Your task to perform on an android device: set the timer Image 0: 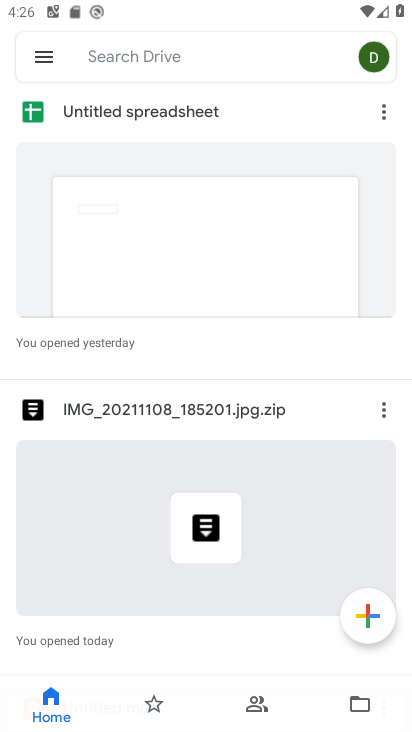
Step 0: press home button
Your task to perform on an android device: set the timer Image 1: 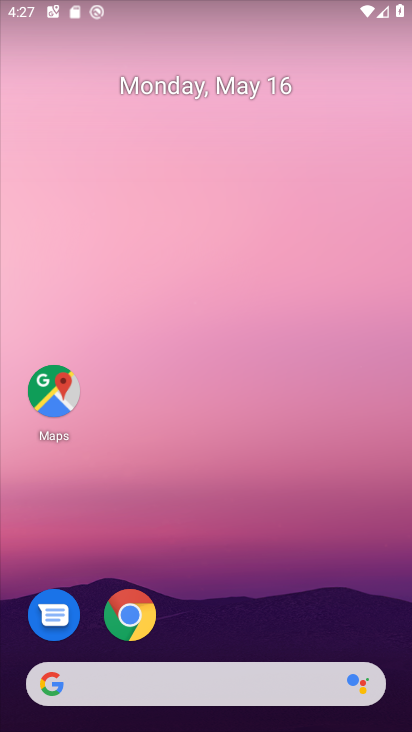
Step 1: drag from (235, 579) to (279, 5)
Your task to perform on an android device: set the timer Image 2: 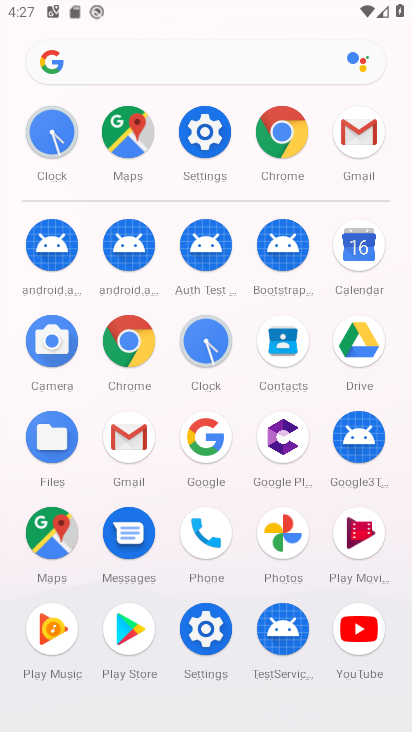
Step 2: click (201, 628)
Your task to perform on an android device: set the timer Image 3: 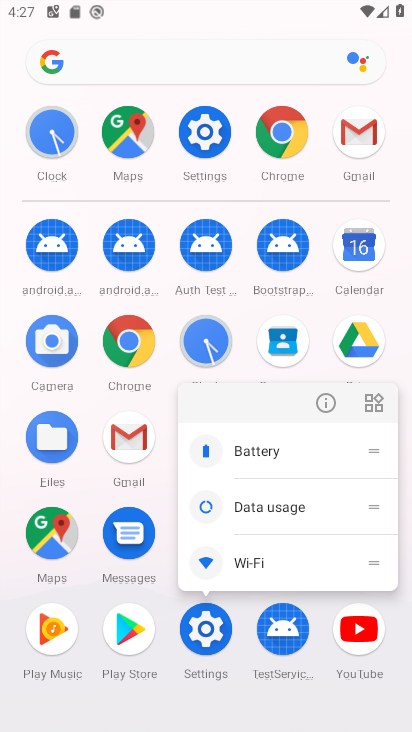
Step 3: click (192, 354)
Your task to perform on an android device: set the timer Image 4: 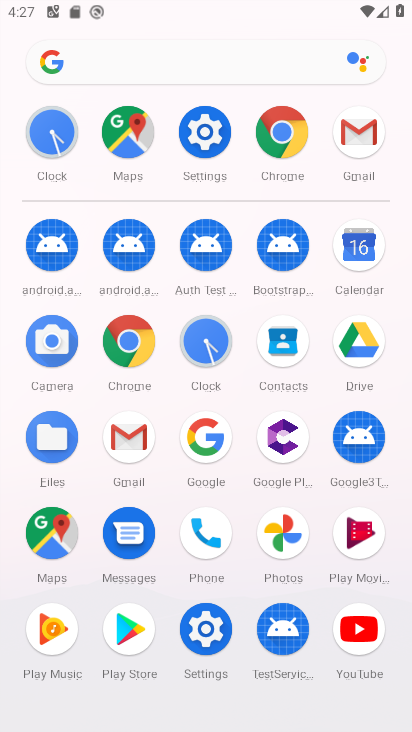
Step 4: click (203, 347)
Your task to perform on an android device: set the timer Image 5: 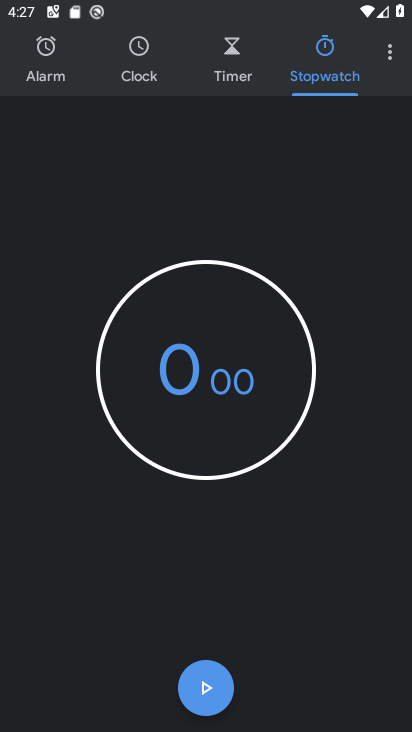
Step 5: click (239, 74)
Your task to perform on an android device: set the timer Image 6: 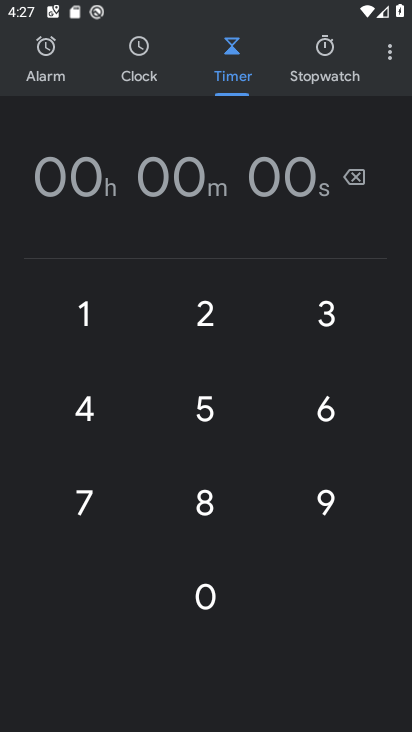
Step 6: click (198, 326)
Your task to perform on an android device: set the timer Image 7: 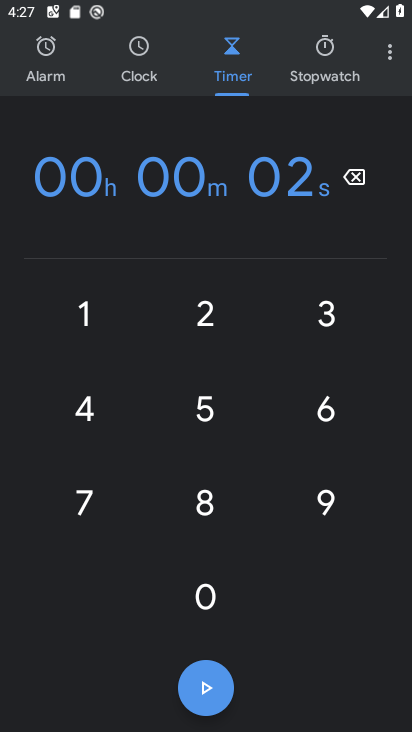
Step 7: click (229, 586)
Your task to perform on an android device: set the timer Image 8: 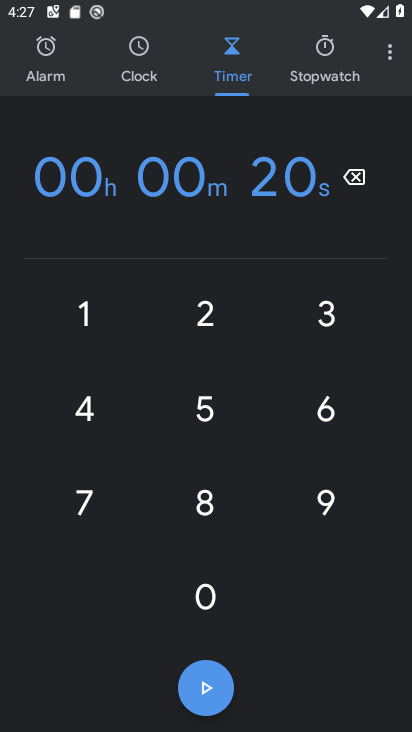
Step 8: click (214, 310)
Your task to perform on an android device: set the timer Image 9: 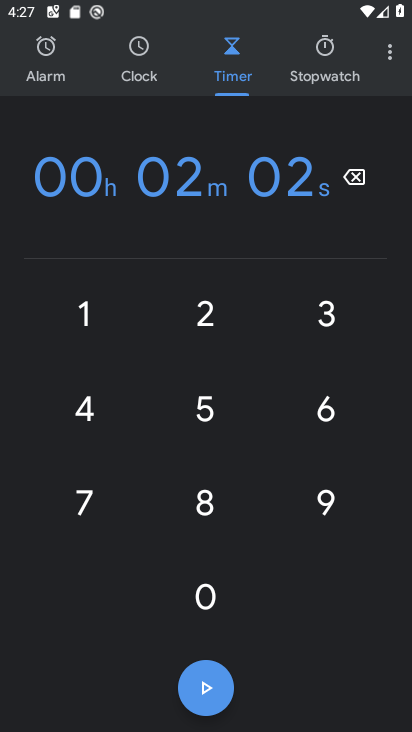
Step 9: click (214, 595)
Your task to perform on an android device: set the timer Image 10: 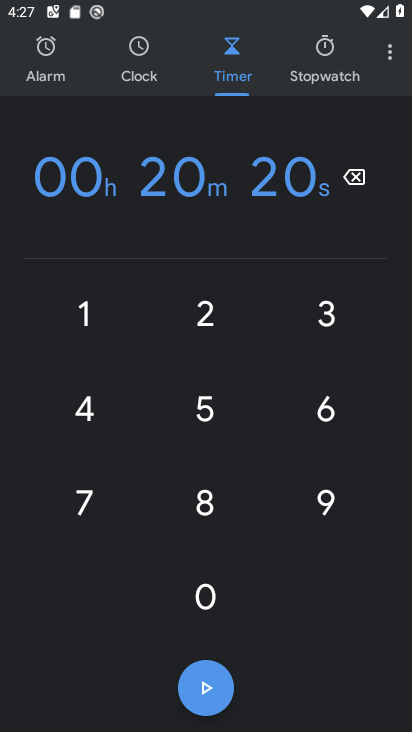
Step 10: click (214, 695)
Your task to perform on an android device: set the timer Image 11: 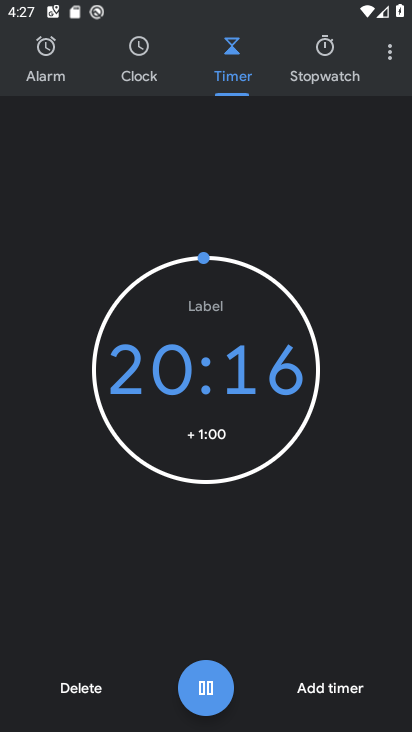
Step 11: click (309, 692)
Your task to perform on an android device: set the timer Image 12: 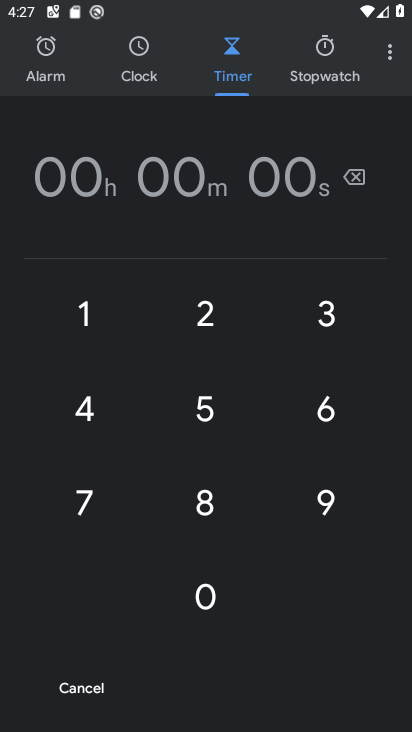
Step 12: task complete